Your task to perform on an android device: Open Chrome and go to settings Image 0: 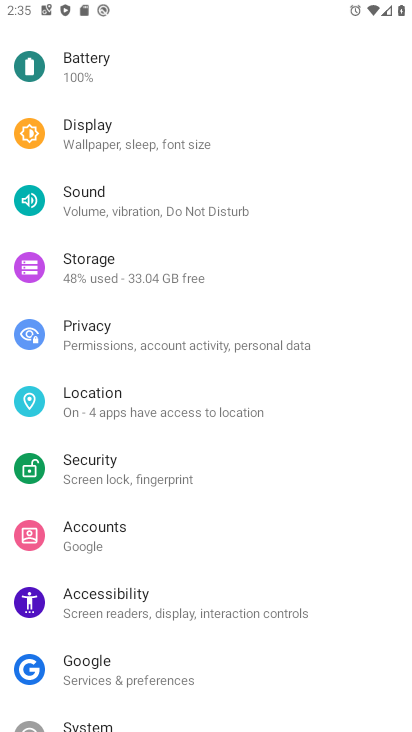
Step 0: press home button
Your task to perform on an android device: Open Chrome and go to settings Image 1: 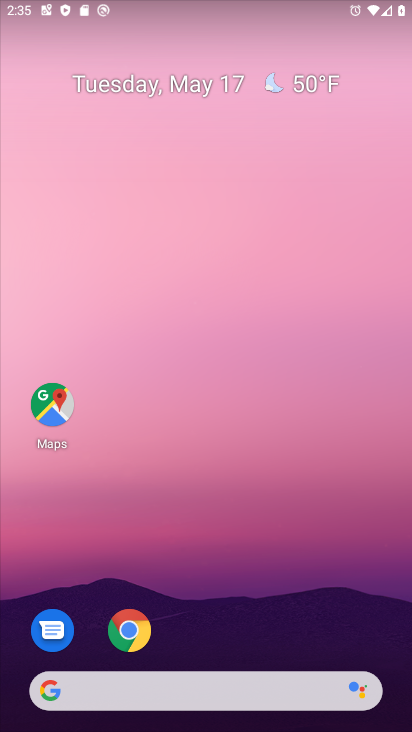
Step 1: click (134, 622)
Your task to perform on an android device: Open Chrome and go to settings Image 2: 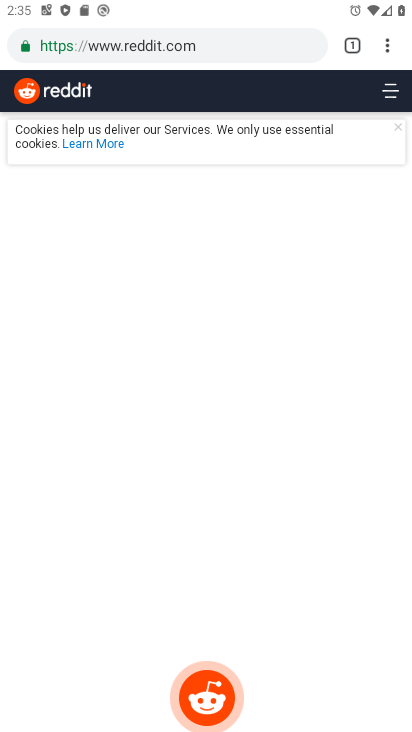
Step 2: click (395, 42)
Your task to perform on an android device: Open Chrome and go to settings Image 3: 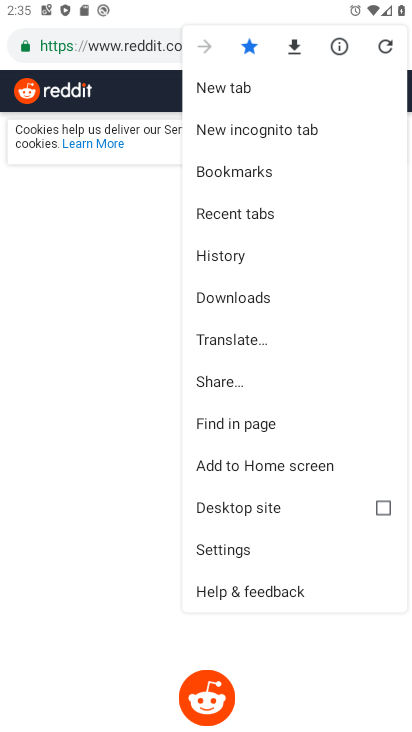
Step 3: click (237, 545)
Your task to perform on an android device: Open Chrome and go to settings Image 4: 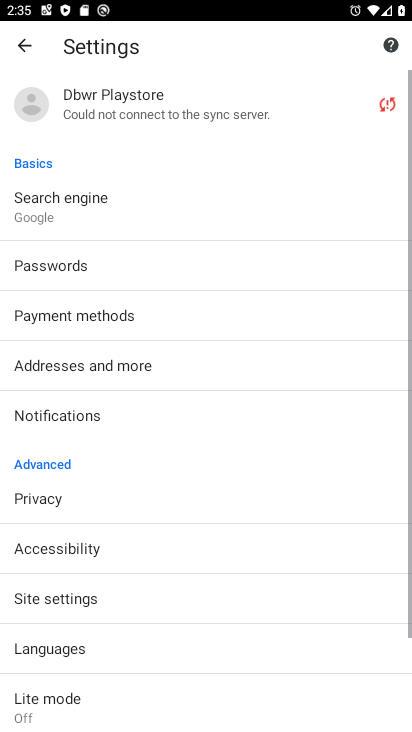
Step 4: task complete